Your task to perform on an android device: Open Google Maps and go to "Timeline" Image 0: 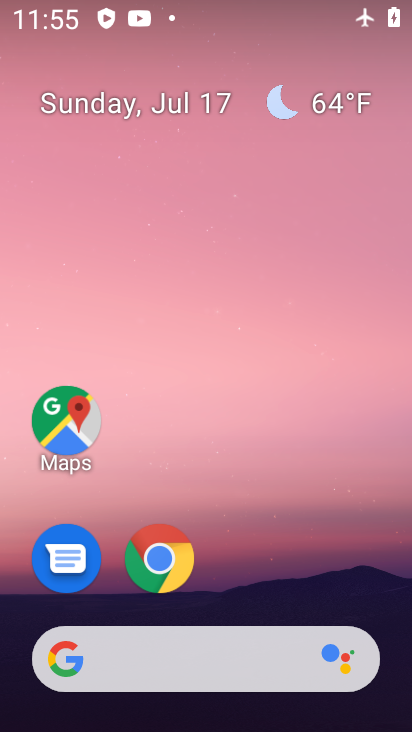
Step 0: drag from (363, 569) to (380, 119)
Your task to perform on an android device: Open Google Maps and go to "Timeline" Image 1: 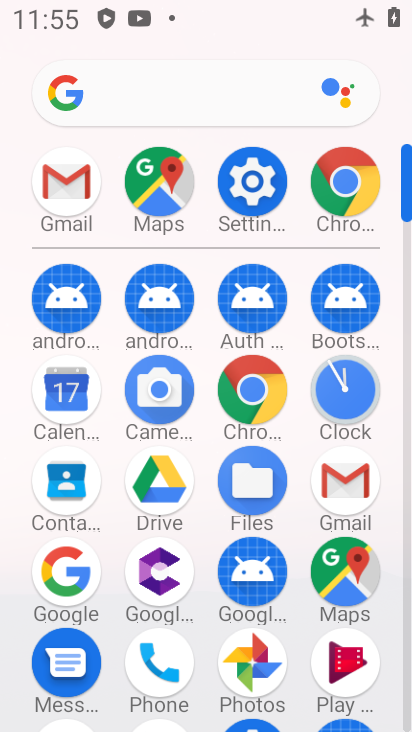
Step 1: click (342, 586)
Your task to perform on an android device: Open Google Maps and go to "Timeline" Image 2: 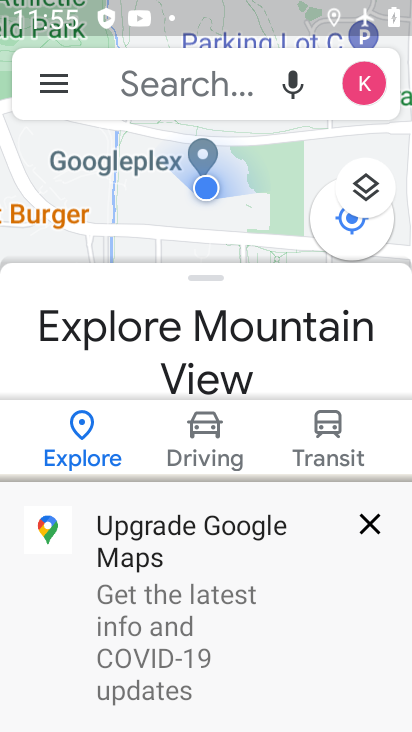
Step 2: click (68, 84)
Your task to perform on an android device: Open Google Maps and go to "Timeline" Image 3: 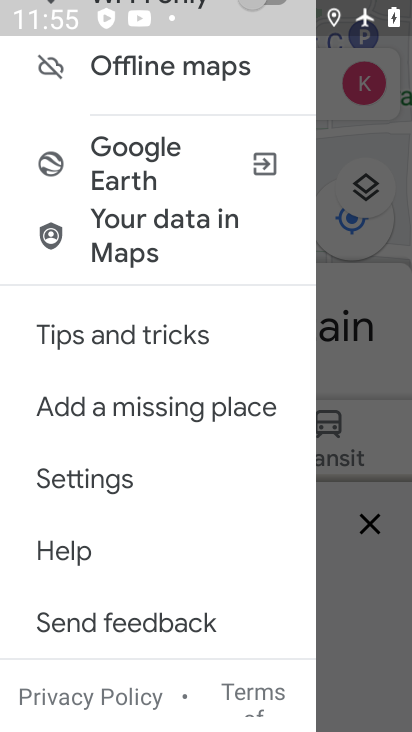
Step 3: drag from (234, 325) to (253, 458)
Your task to perform on an android device: Open Google Maps and go to "Timeline" Image 4: 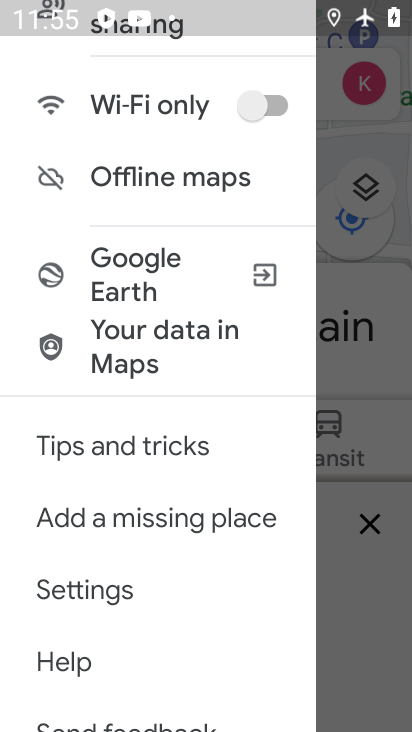
Step 4: drag from (216, 228) to (200, 394)
Your task to perform on an android device: Open Google Maps and go to "Timeline" Image 5: 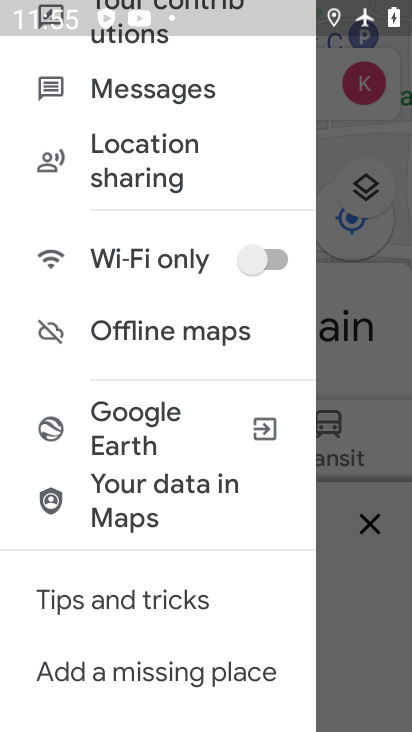
Step 5: drag from (212, 117) to (215, 299)
Your task to perform on an android device: Open Google Maps and go to "Timeline" Image 6: 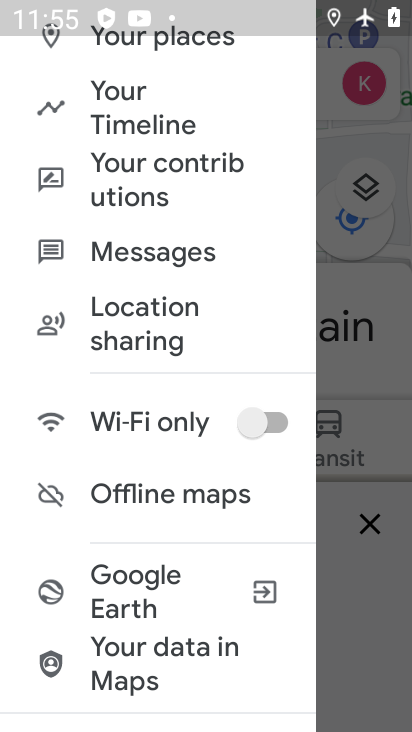
Step 6: drag from (215, 81) to (208, 304)
Your task to perform on an android device: Open Google Maps and go to "Timeline" Image 7: 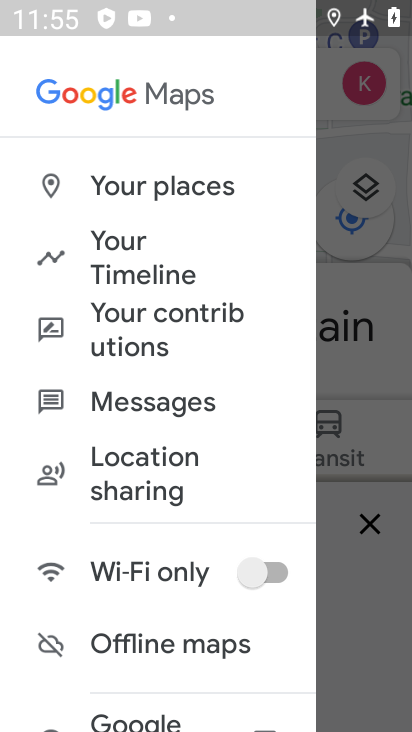
Step 7: click (150, 263)
Your task to perform on an android device: Open Google Maps and go to "Timeline" Image 8: 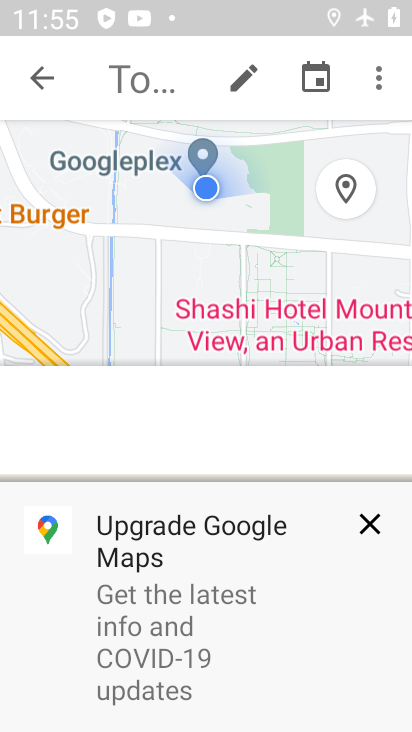
Step 8: task complete